Your task to perform on an android device: open device folders in google photos Image 0: 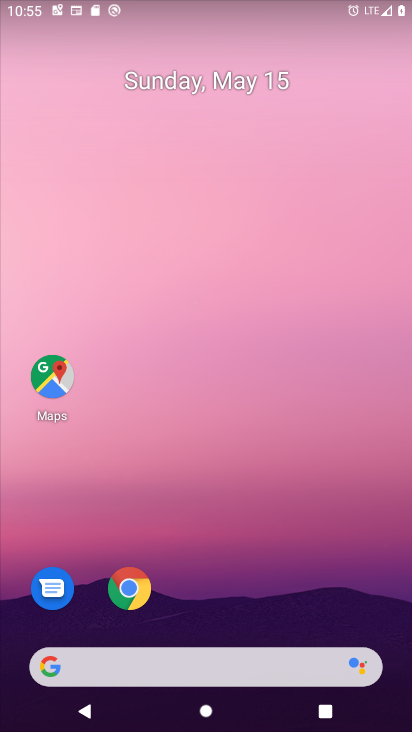
Step 0: drag from (230, 625) to (226, 76)
Your task to perform on an android device: open device folders in google photos Image 1: 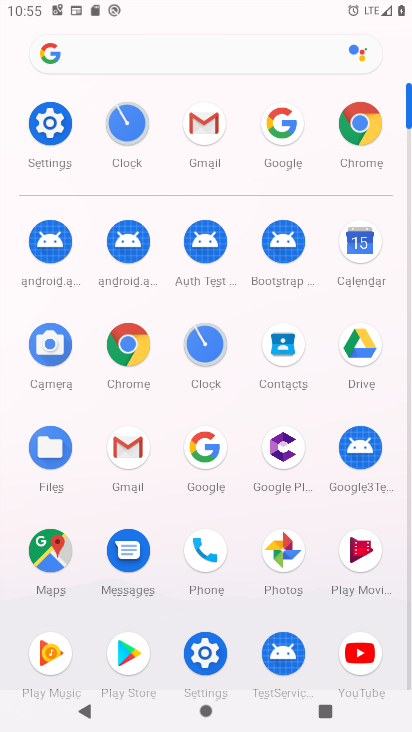
Step 1: click (289, 545)
Your task to perform on an android device: open device folders in google photos Image 2: 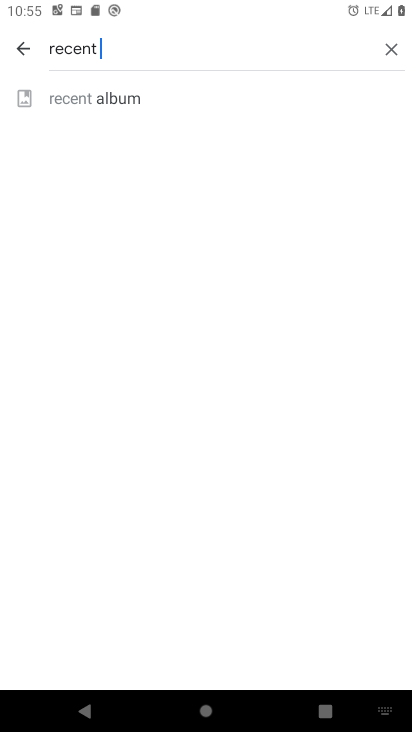
Step 2: click (16, 50)
Your task to perform on an android device: open device folders in google photos Image 3: 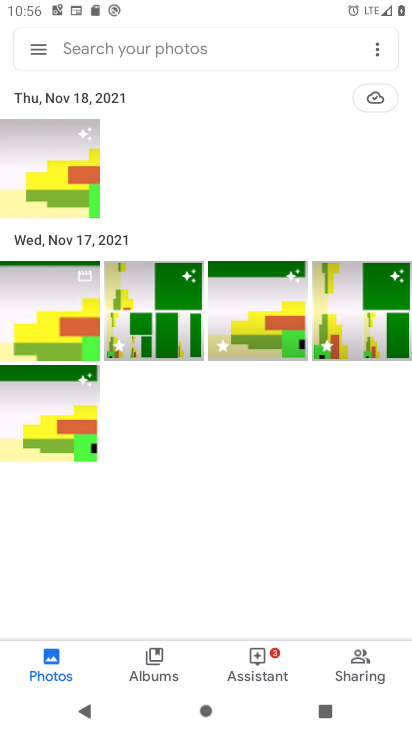
Step 3: click (36, 49)
Your task to perform on an android device: open device folders in google photos Image 4: 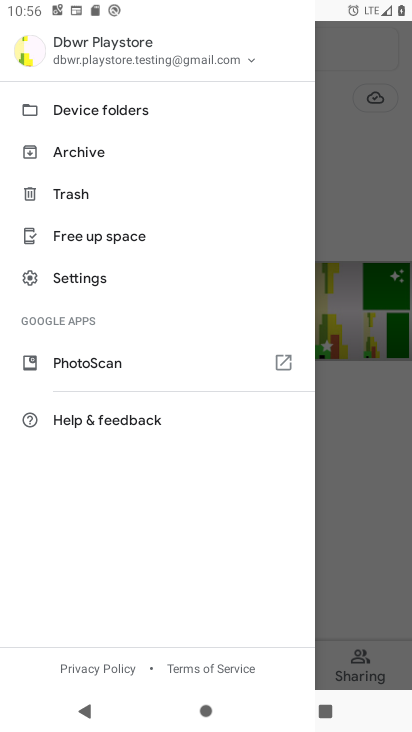
Step 4: click (80, 108)
Your task to perform on an android device: open device folders in google photos Image 5: 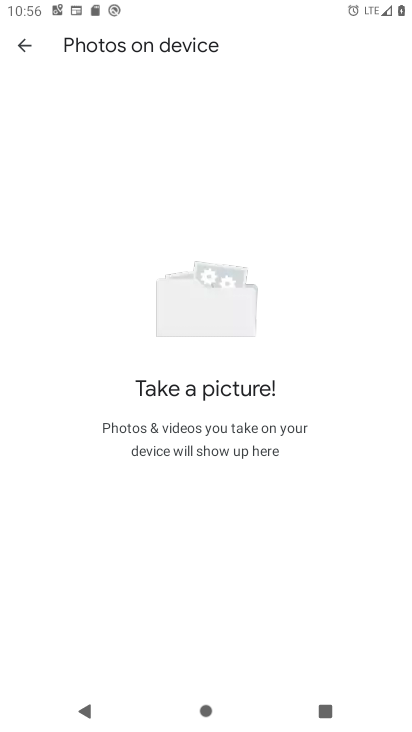
Step 5: task complete